Your task to perform on an android device: turn off sleep mode Image 0: 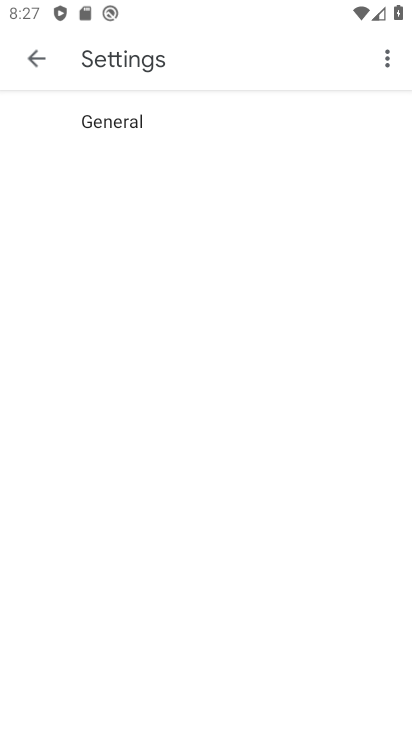
Step 0: press home button
Your task to perform on an android device: turn off sleep mode Image 1: 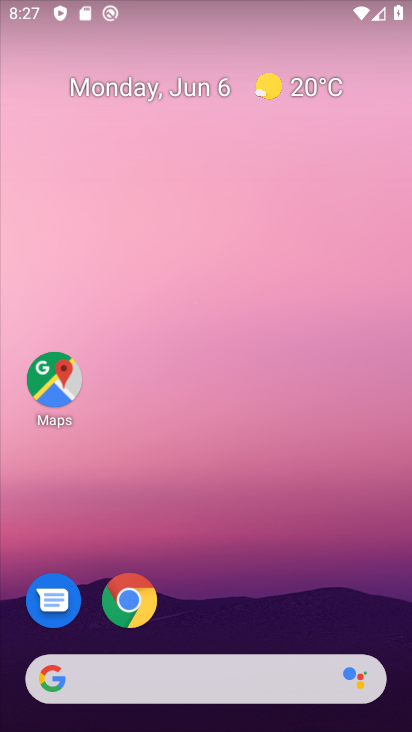
Step 1: drag from (39, 529) to (231, 133)
Your task to perform on an android device: turn off sleep mode Image 2: 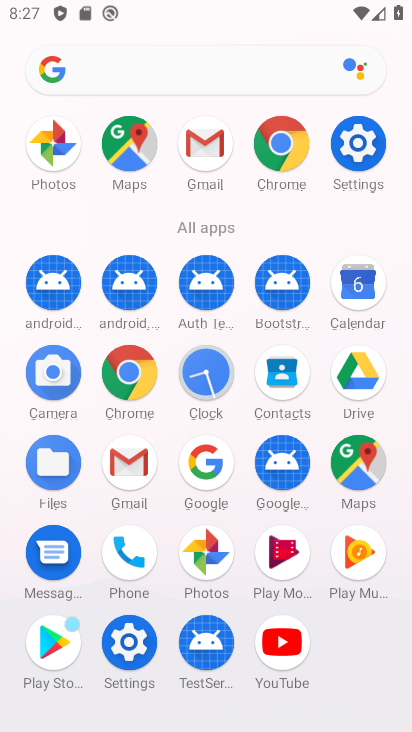
Step 2: click (380, 143)
Your task to perform on an android device: turn off sleep mode Image 3: 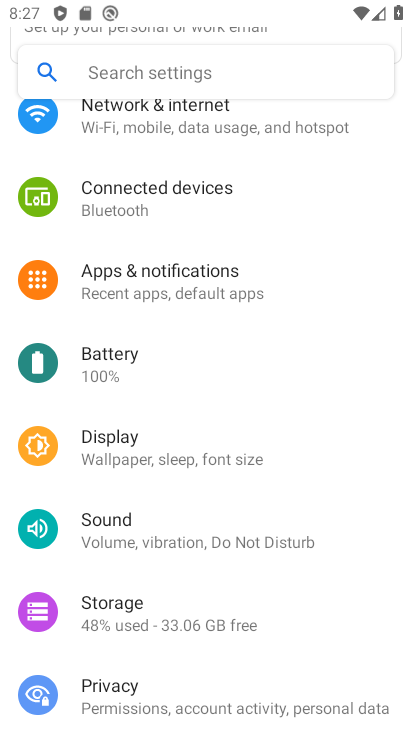
Step 3: click (231, 459)
Your task to perform on an android device: turn off sleep mode Image 4: 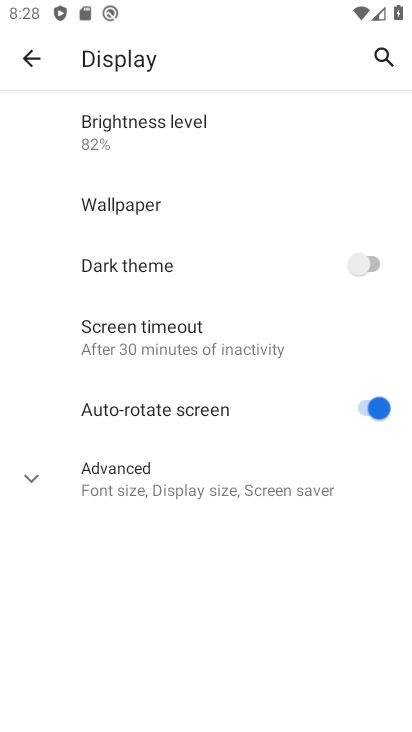
Step 4: task complete